Your task to perform on an android device: Play the last video I watched on Youtube Image 0: 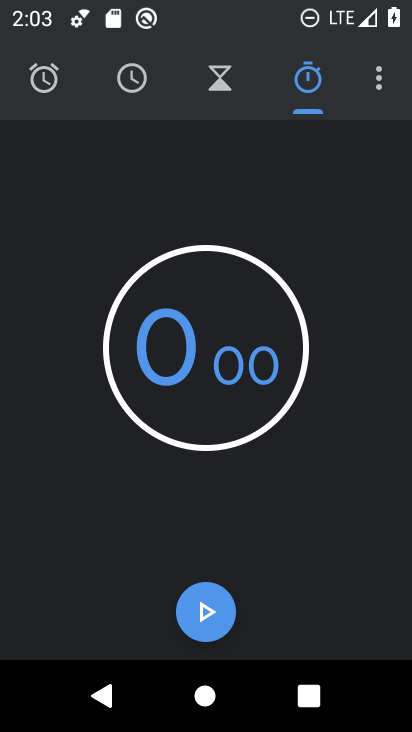
Step 0: press home button
Your task to perform on an android device: Play the last video I watched on Youtube Image 1: 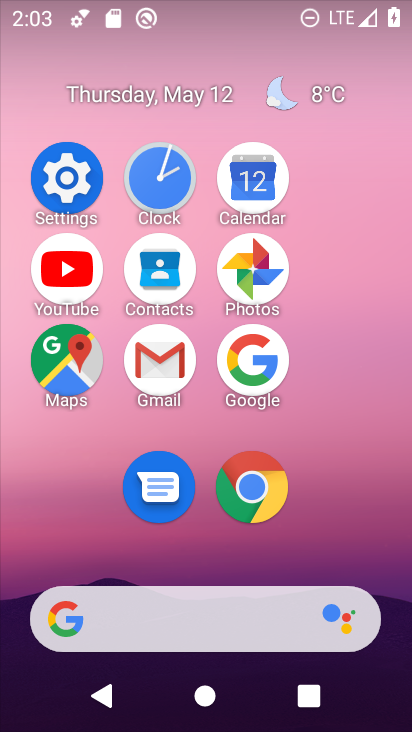
Step 1: click (69, 275)
Your task to perform on an android device: Play the last video I watched on Youtube Image 2: 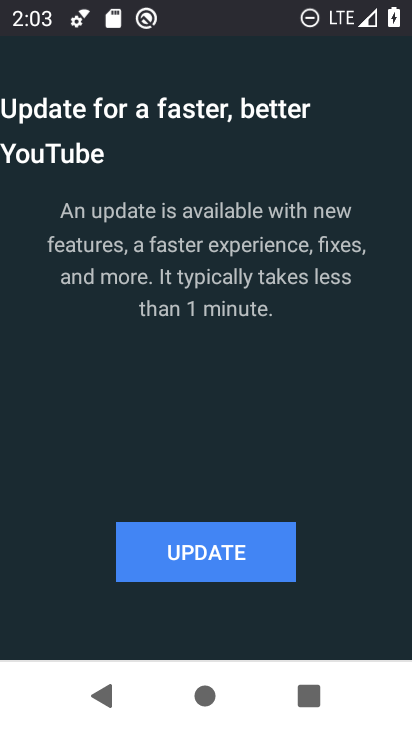
Step 2: click (165, 540)
Your task to perform on an android device: Play the last video I watched on Youtube Image 3: 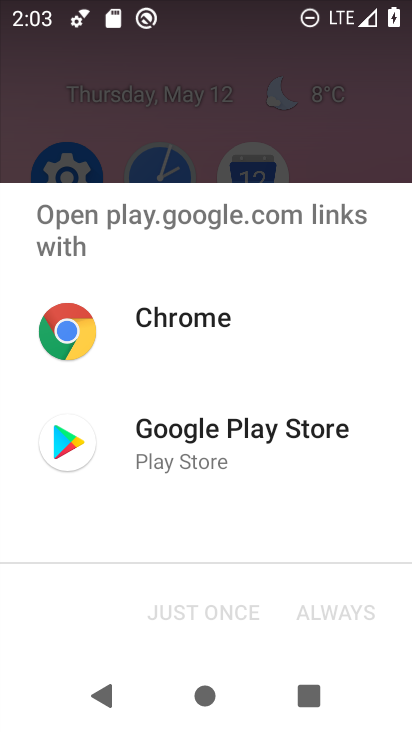
Step 3: click (215, 411)
Your task to perform on an android device: Play the last video I watched on Youtube Image 4: 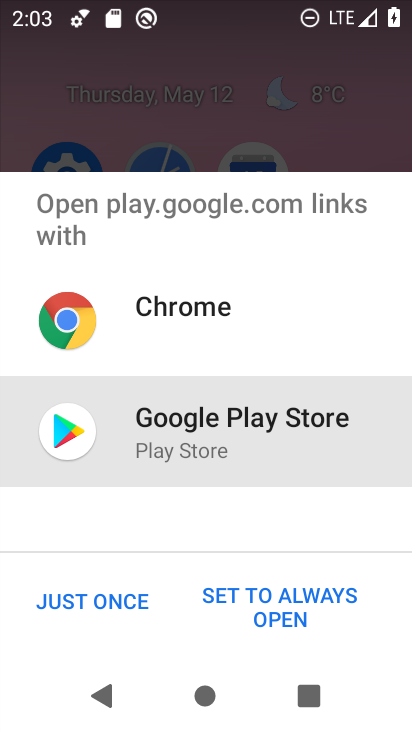
Step 4: drag from (215, 411) to (315, 411)
Your task to perform on an android device: Play the last video I watched on Youtube Image 5: 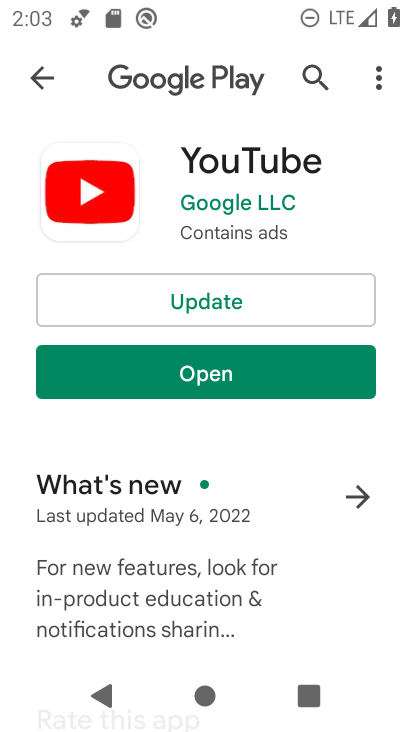
Step 5: click (193, 293)
Your task to perform on an android device: Play the last video I watched on Youtube Image 6: 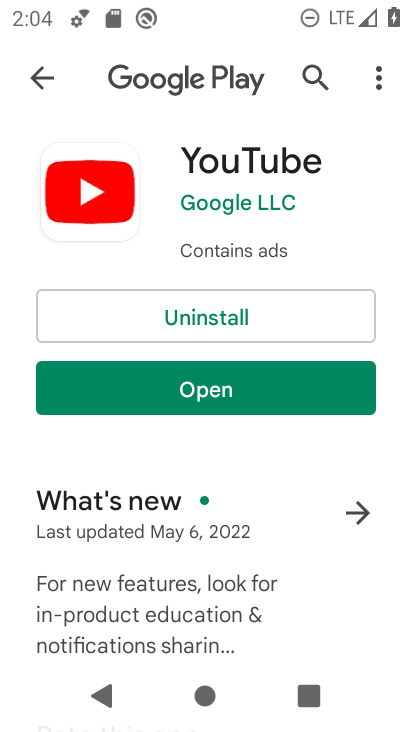
Step 6: click (164, 382)
Your task to perform on an android device: Play the last video I watched on Youtube Image 7: 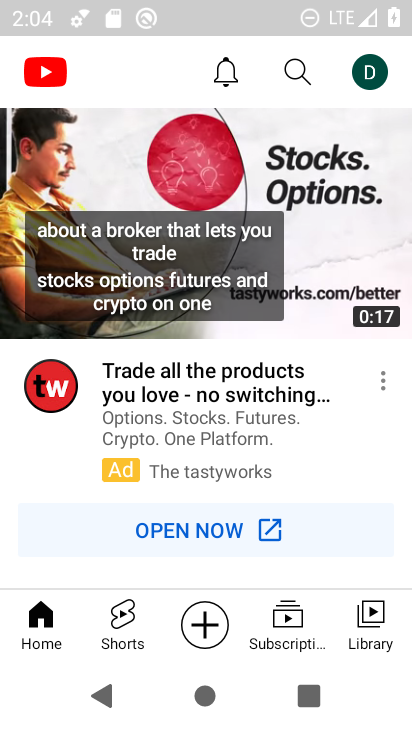
Step 7: click (378, 631)
Your task to perform on an android device: Play the last video I watched on Youtube Image 8: 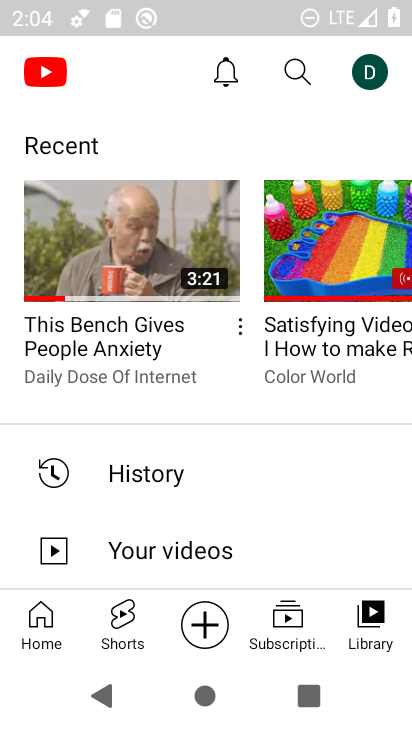
Step 8: click (204, 476)
Your task to perform on an android device: Play the last video I watched on Youtube Image 9: 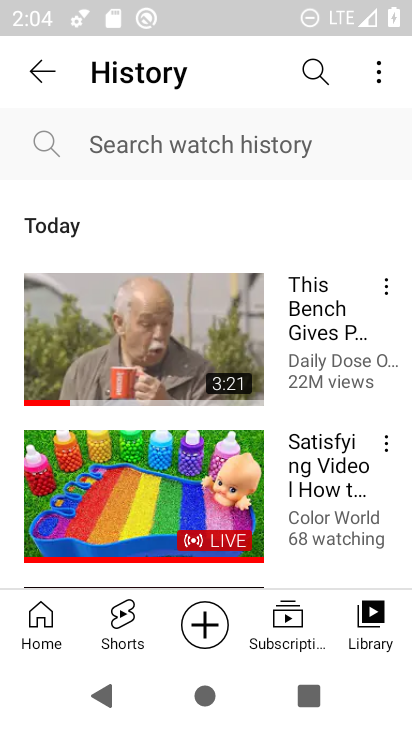
Step 9: task complete